Your task to perform on an android device: Go to internet settings Image 0: 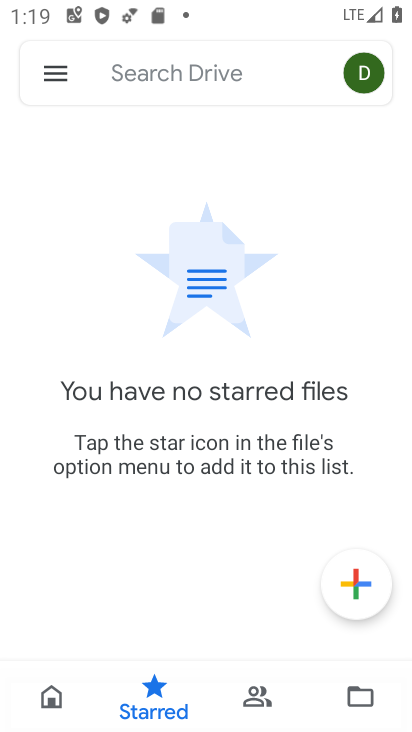
Step 0: press home button
Your task to perform on an android device: Go to internet settings Image 1: 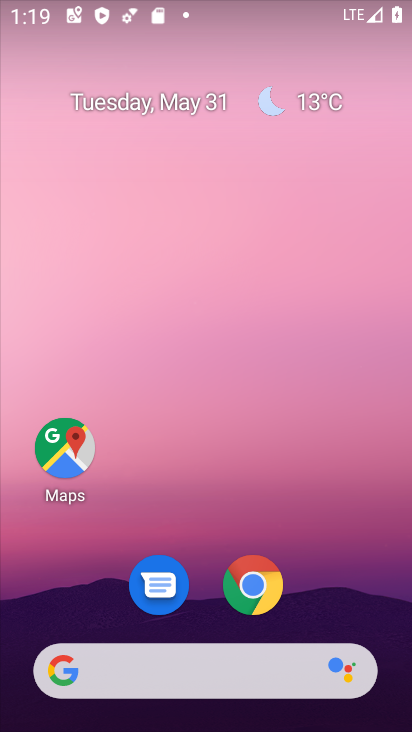
Step 1: drag from (195, 446) to (275, 25)
Your task to perform on an android device: Go to internet settings Image 2: 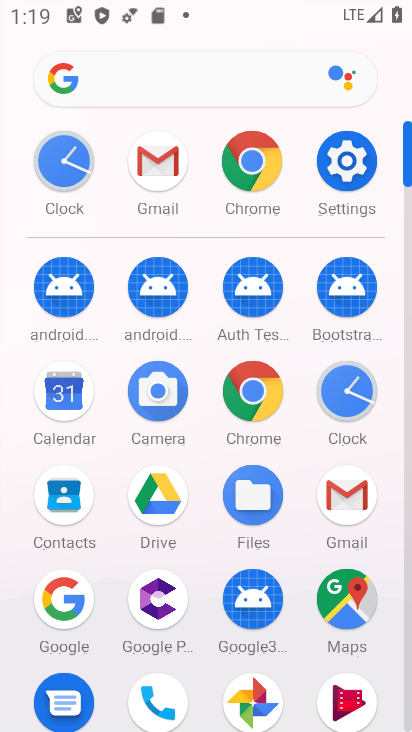
Step 2: click (340, 159)
Your task to perform on an android device: Go to internet settings Image 3: 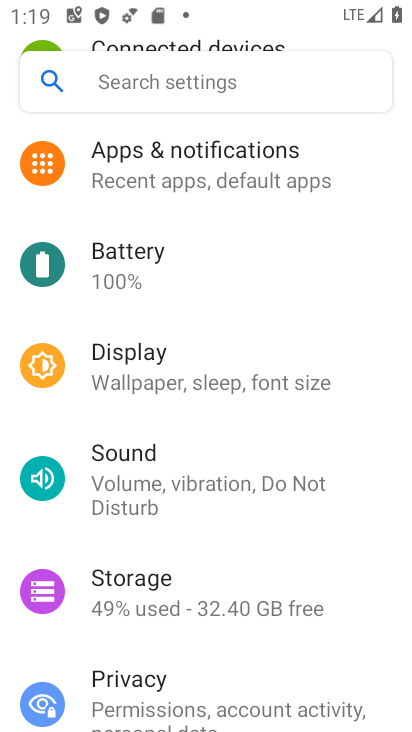
Step 3: drag from (246, 246) to (230, 613)
Your task to perform on an android device: Go to internet settings Image 4: 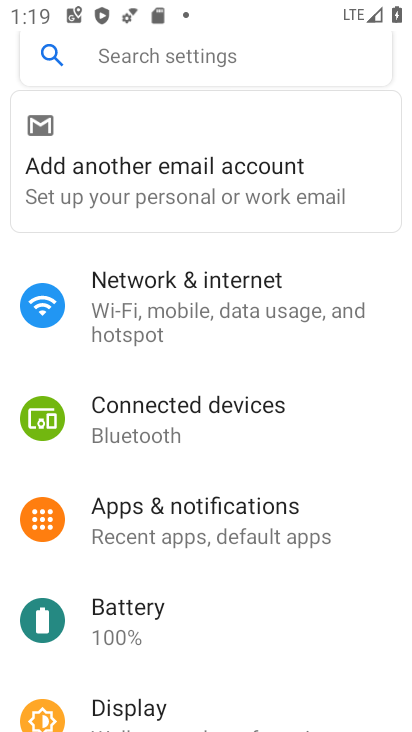
Step 4: click (205, 303)
Your task to perform on an android device: Go to internet settings Image 5: 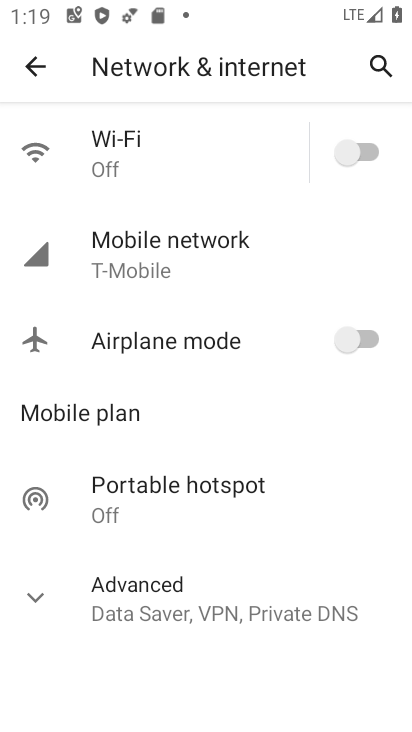
Step 5: task complete